Your task to perform on an android device: Open the map Image 0: 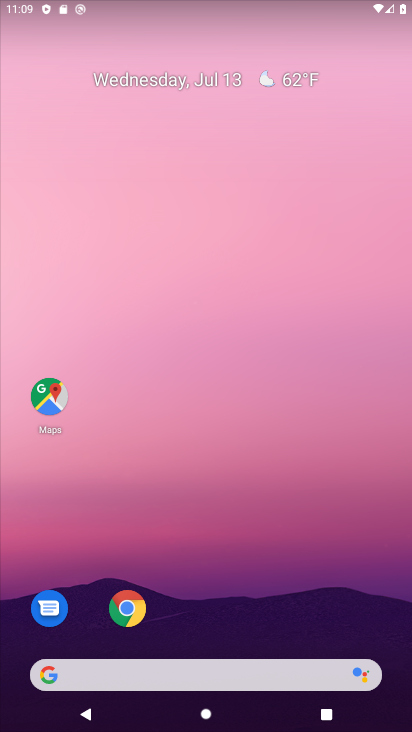
Step 0: drag from (246, 707) to (247, 91)
Your task to perform on an android device: Open the map Image 1: 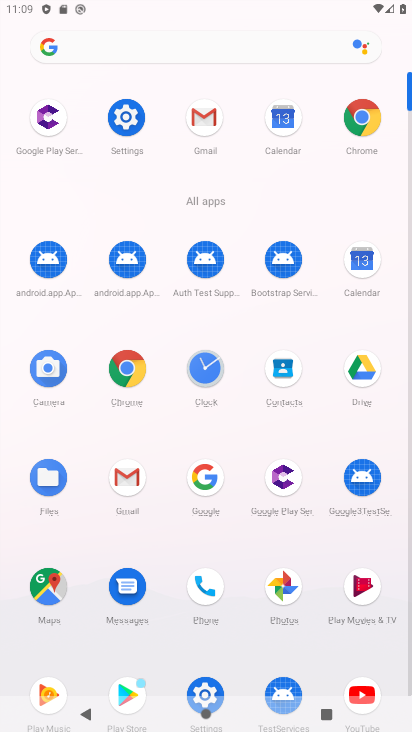
Step 1: click (48, 588)
Your task to perform on an android device: Open the map Image 2: 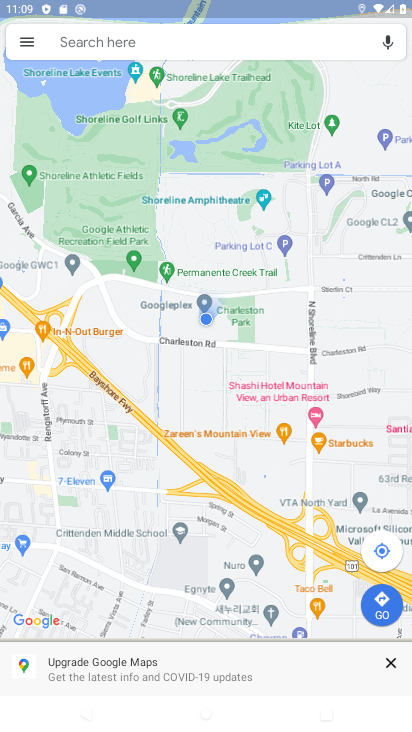
Step 2: task complete